Your task to perform on an android device: Is it going to rain tomorrow? Image 0: 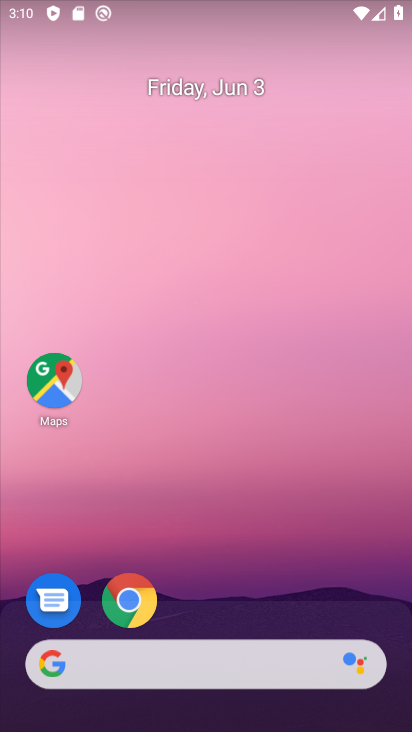
Step 0: click (200, 669)
Your task to perform on an android device: Is it going to rain tomorrow? Image 1: 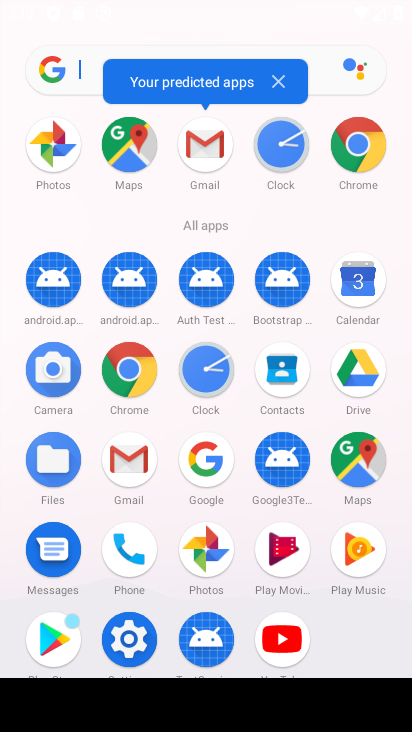
Step 1: click (92, 61)
Your task to perform on an android device: Is it going to rain tomorrow? Image 2: 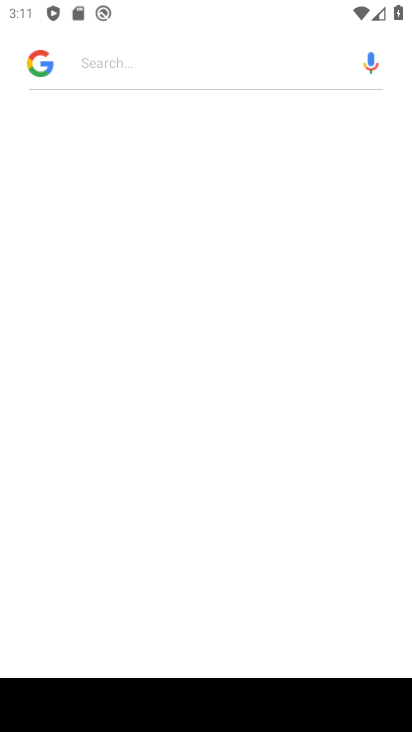
Step 2: type "weather"
Your task to perform on an android device: Is it going to rain tomorrow? Image 3: 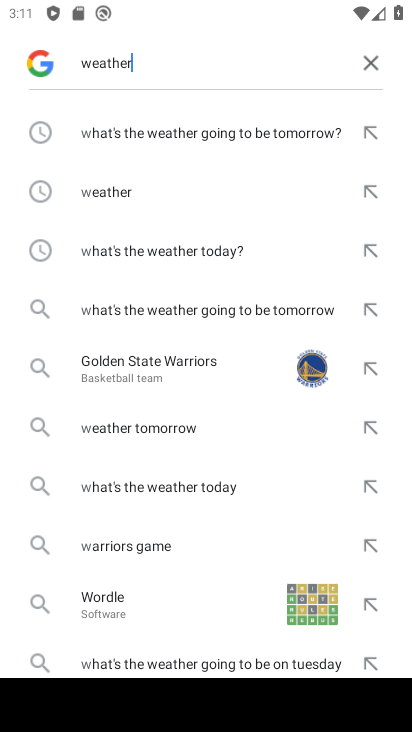
Step 3: click (202, 80)
Your task to perform on an android device: Is it going to rain tomorrow? Image 4: 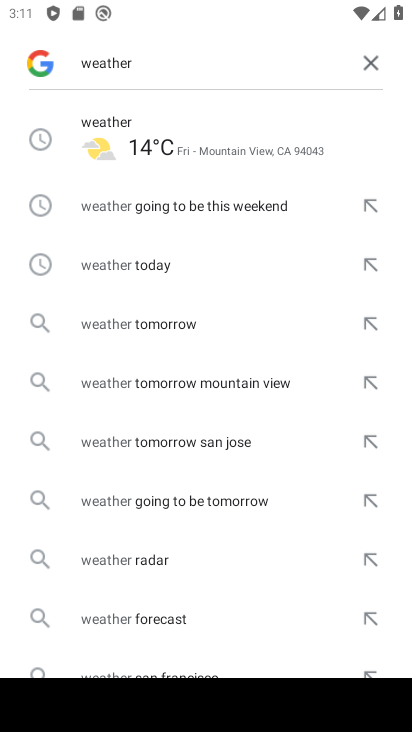
Step 4: click (177, 123)
Your task to perform on an android device: Is it going to rain tomorrow? Image 5: 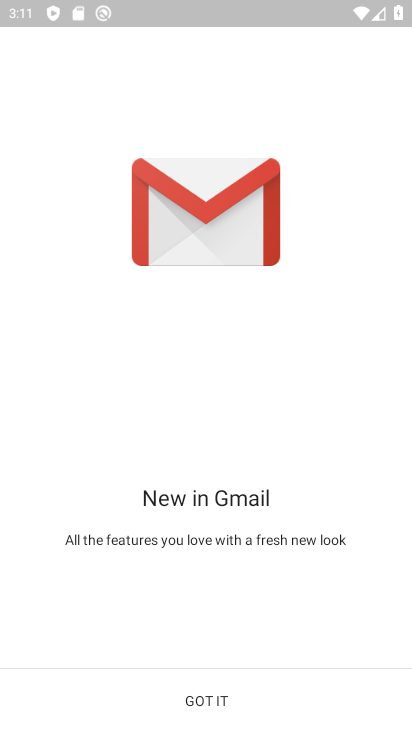
Step 5: drag from (240, 708) to (296, 305)
Your task to perform on an android device: Is it going to rain tomorrow? Image 6: 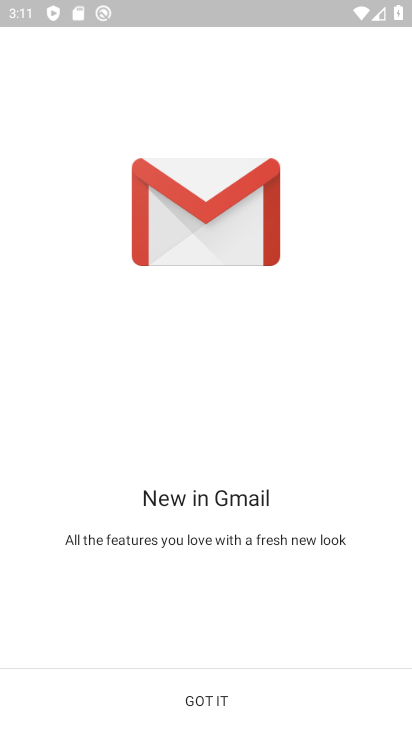
Step 6: press home button
Your task to perform on an android device: Is it going to rain tomorrow? Image 7: 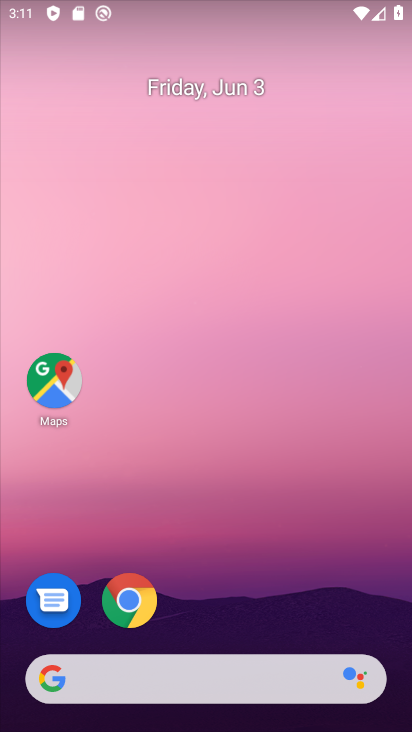
Step 7: click (204, 676)
Your task to perform on an android device: Is it going to rain tomorrow? Image 8: 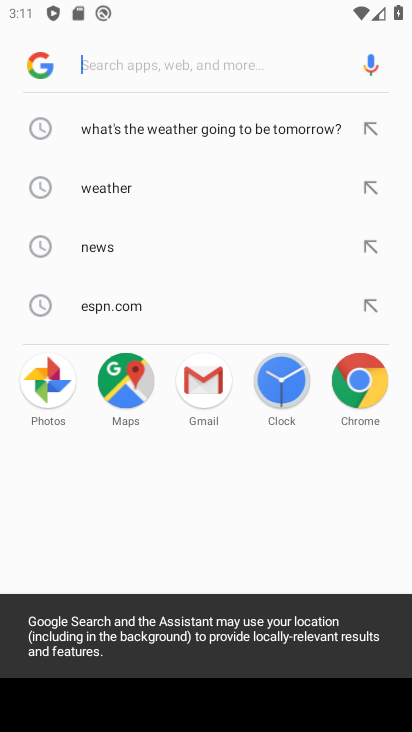
Step 8: click (210, 135)
Your task to perform on an android device: Is it going to rain tomorrow? Image 9: 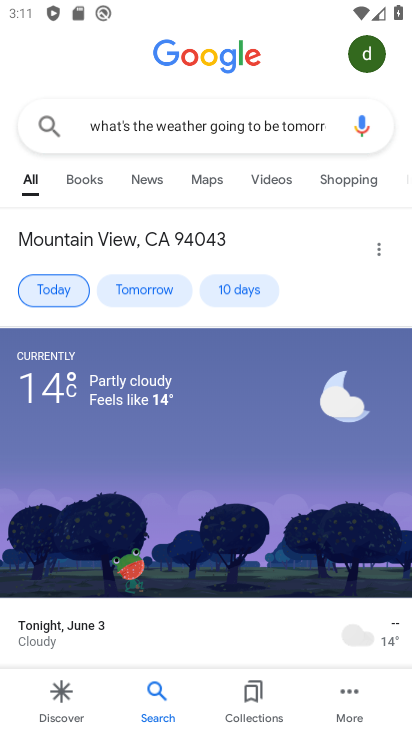
Step 9: click (146, 286)
Your task to perform on an android device: Is it going to rain tomorrow? Image 10: 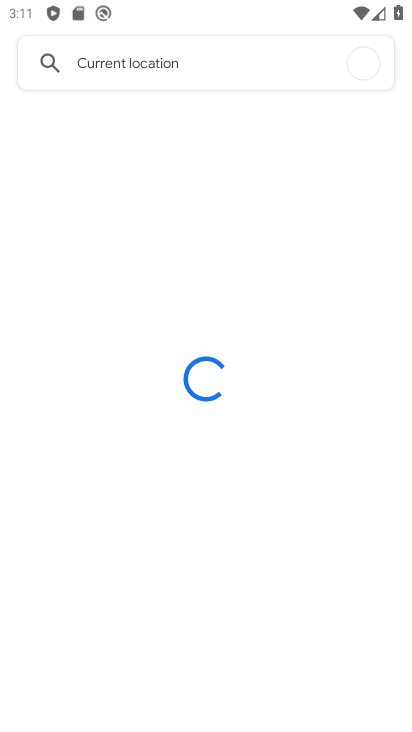
Step 10: task complete